Your task to perform on an android device: set default search engine in the chrome app Image 0: 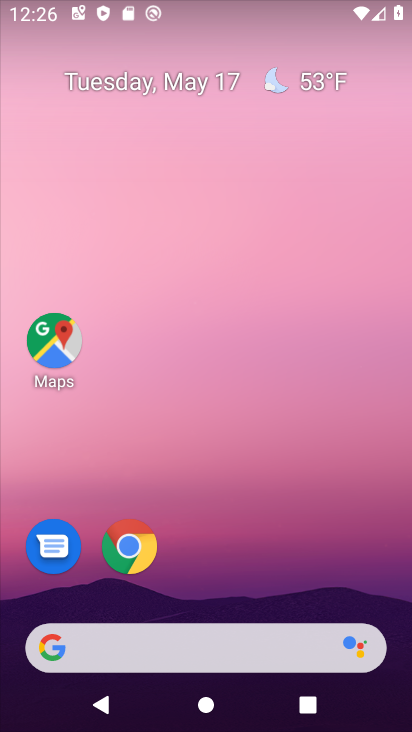
Step 0: click (133, 542)
Your task to perform on an android device: set default search engine in the chrome app Image 1: 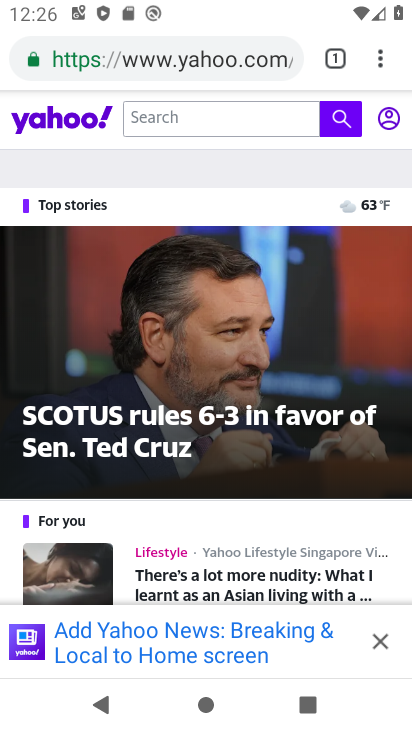
Step 1: click (374, 55)
Your task to perform on an android device: set default search engine in the chrome app Image 2: 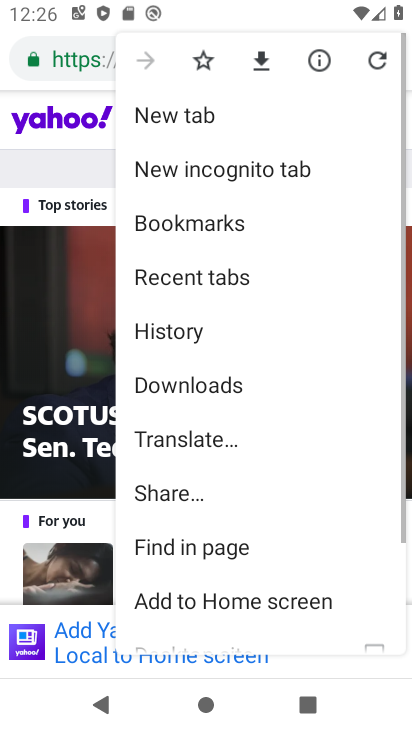
Step 2: drag from (239, 515) to (254, 141)
Your task to perform on an android device: set default search engine in the chrome app Image 3: 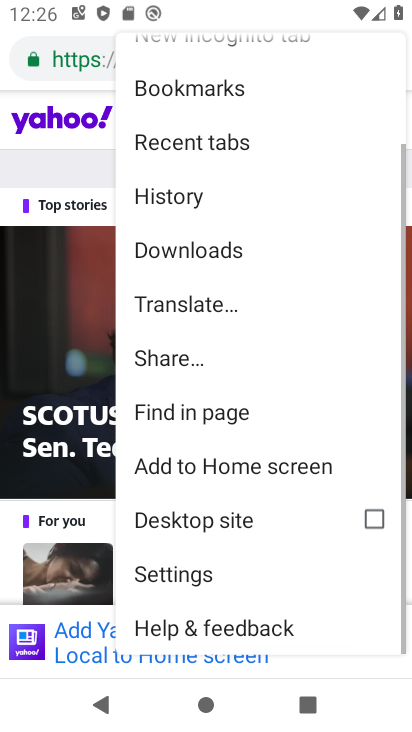
Step 3: click (220, 563)
Your task to perform on an android device: set default search engine in the chrome app Image 4: 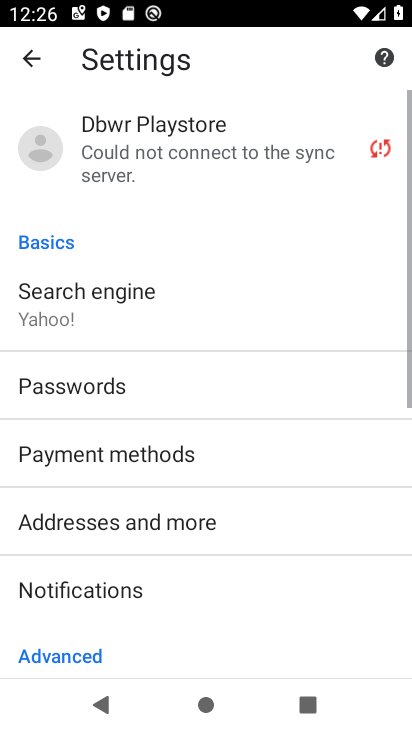
Step 4: click (143, 296)
Your task to perform on an android device: set default search engine in the chrome app Image 5: 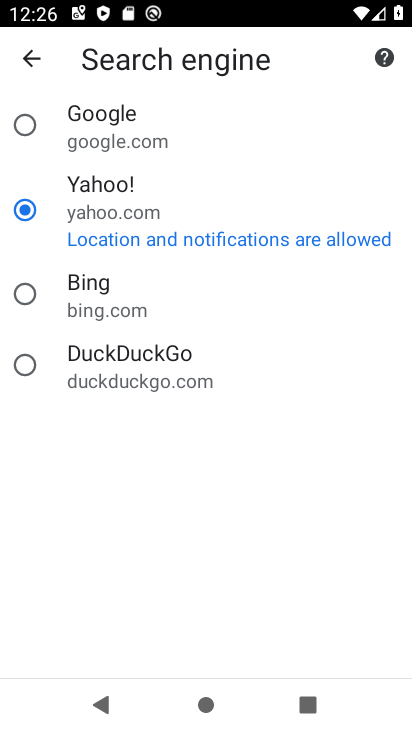
Step 5: click (91, 116)
Your task to perform on an android device: set default search engine in the chrome app Image 6: 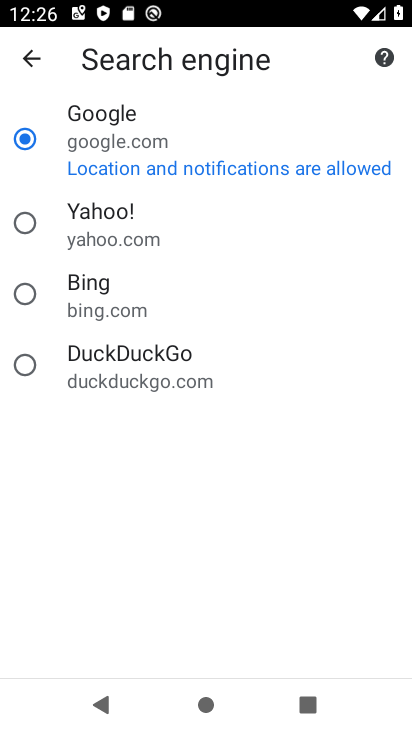
Step 6: task complete